Your task to perform on an android device: open a bookmark in the chrome app Image 0: 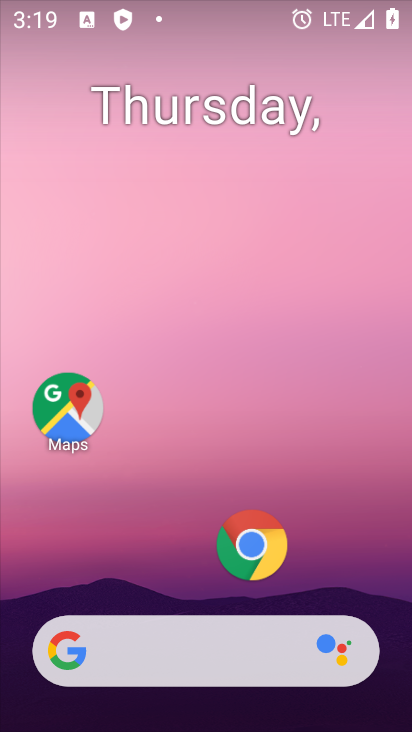
Step 0: drag from (341, 457) to (377, 74)
Your task to perform on an android device: open a bookmark in the chrome app Image 1: 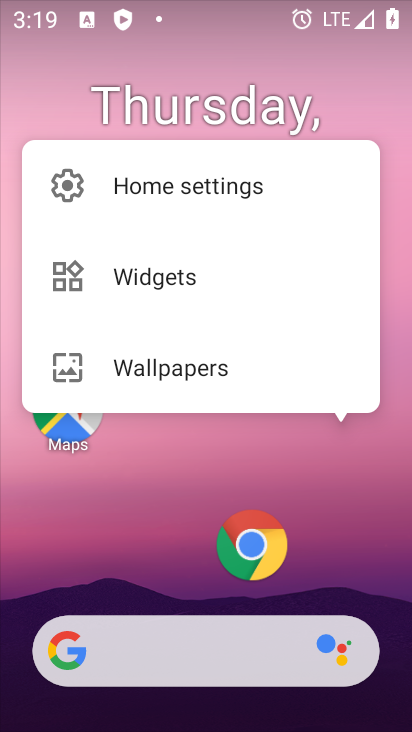
Step 1: click (340, 486)
Your task to perform on an android device: open a bookmark in the chrome app Image 2: 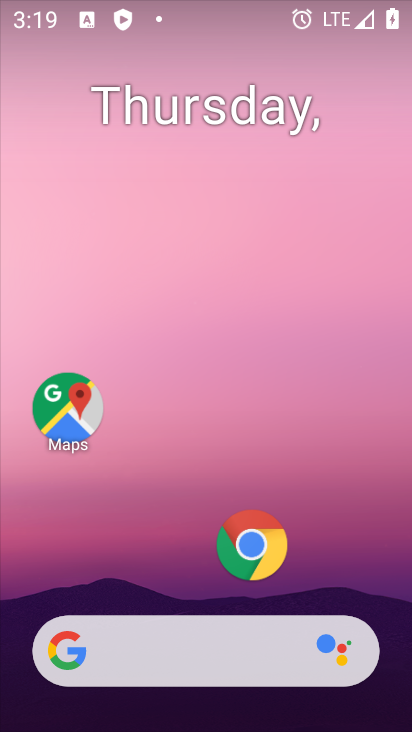
Step 2: drag from (301, 602) to (370, 11)
Your task to perform on an android device: open a bookmark in the chrome app Image 3: 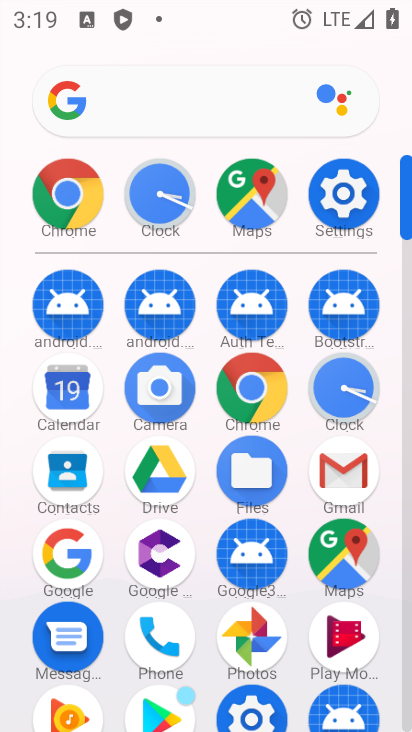
Step 3: click (343, 550)
Your task to perform on an android device: open a bookmark in the chrome app Image 4: 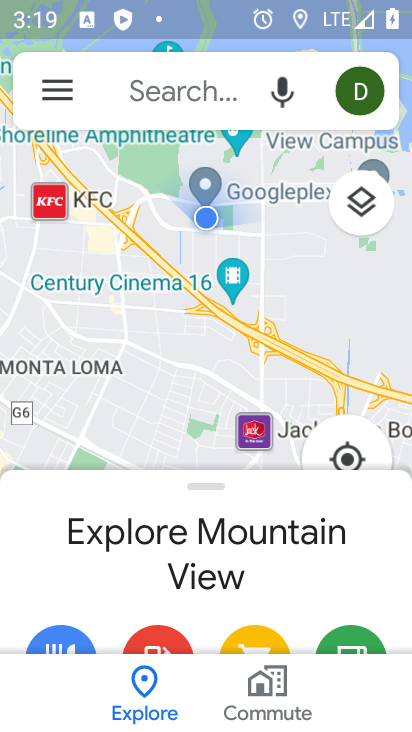
Step 4: press home button
Your task to perform on an android device: open a bookmark in the chrome app Image 5: 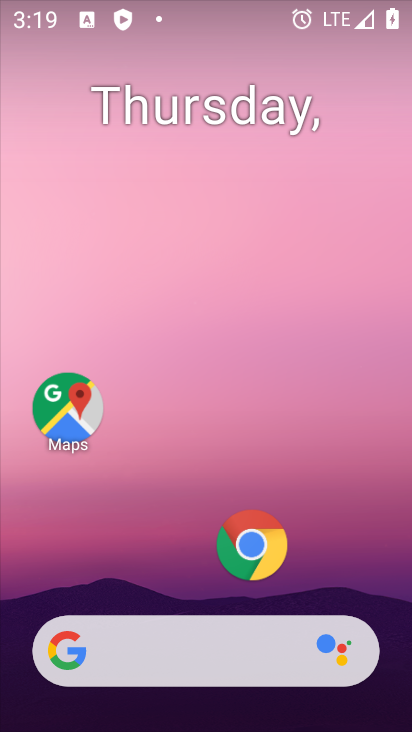
Step 5: drag from (318, 507) to (300, 0)
Your task to perform on an android device: open a bookmark in the chrome app Image 6: 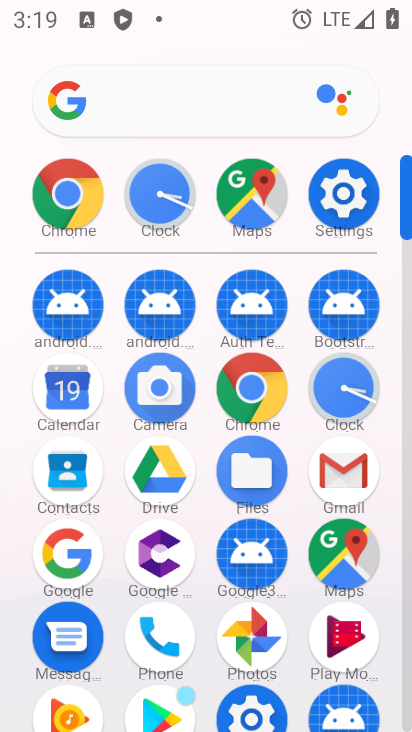
Step 6: click (259, 393)
Your task to perform on an android device: open a bookmark in the chrome app Image 7: 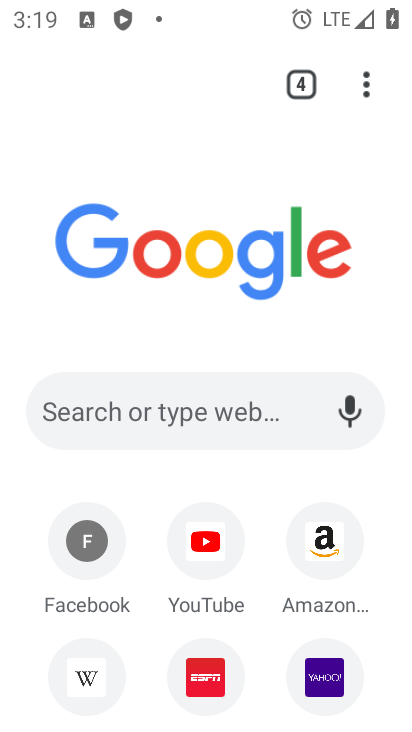
Step 7: click (366, 84)
Your task to perform on an android device: open a bookmark in the chrome app Image 8: 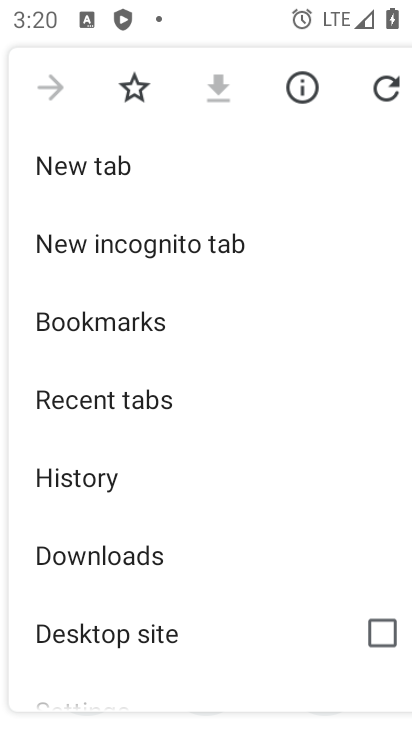
Step 8: click (148, 323)
Your task to perform on an android device: open a bookmark in the chrome app Image 9: 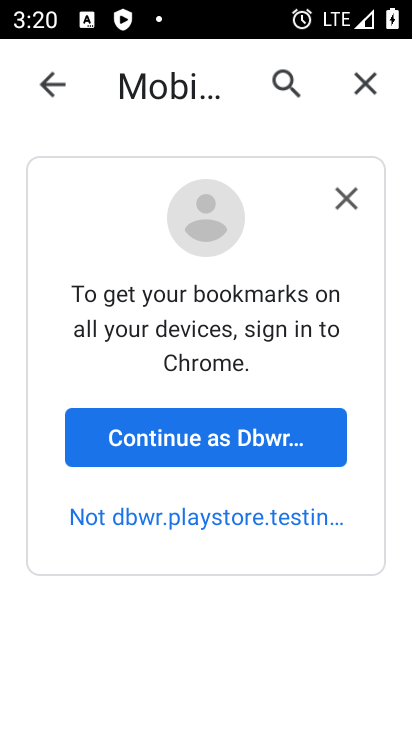
Step 9: task complete